Your task to perform on an android device: Go to privacy settings Image 0: 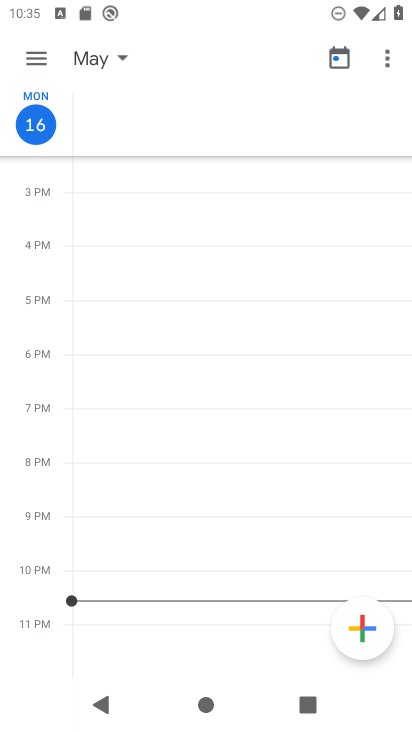
Step 0: press home button
Your task to perform on an android device: Go to privacy settings Image 1: 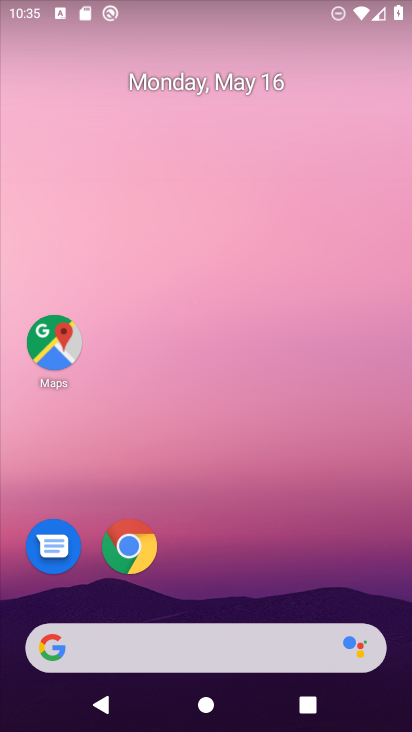
Step 1: drag from (181, 623) to (240, 264)
Your task to perform on an android device: Go to privacy settings Image 2: 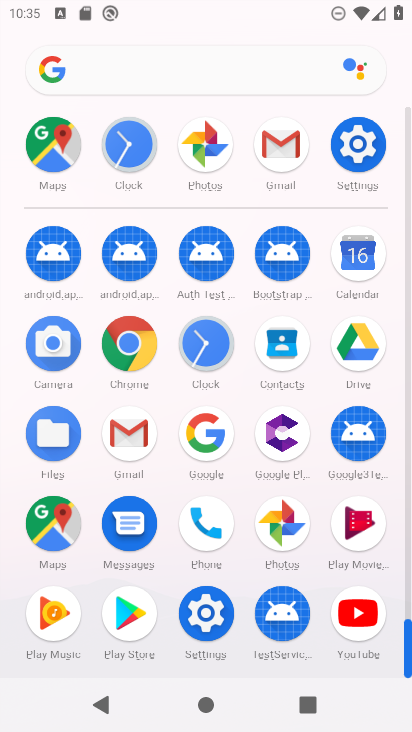
Step 2: click (351, 143)
Your task to perform on an android device: Go to privacy settings Image 3: 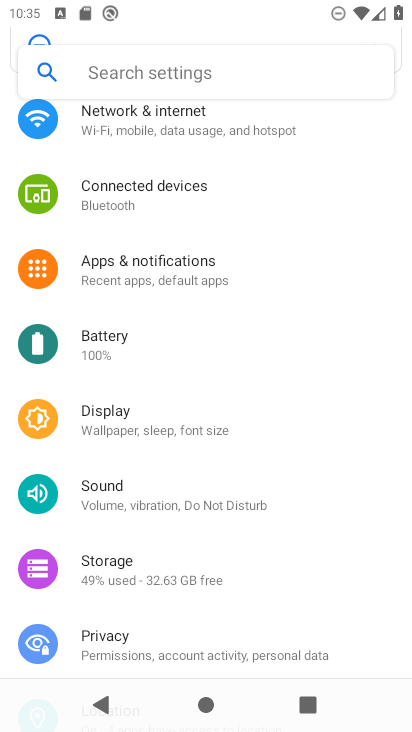
Step 3: click (98, 663)
Your task to perform on an android device: Go to privacy settings Image 4: 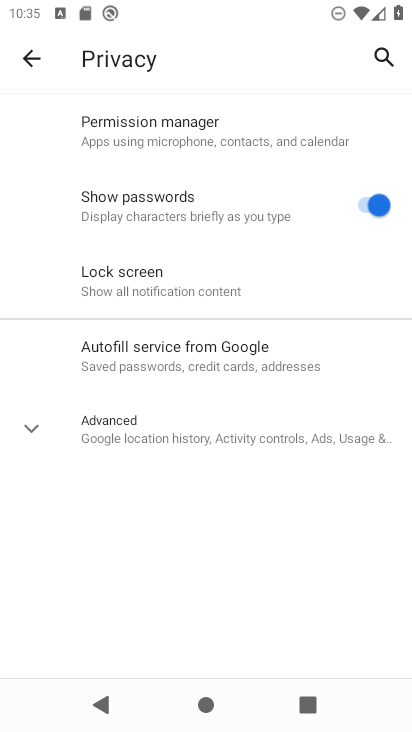
Step 4: task complete